Your task to perform on an android device: open a new tab in the chrome app Image 0: 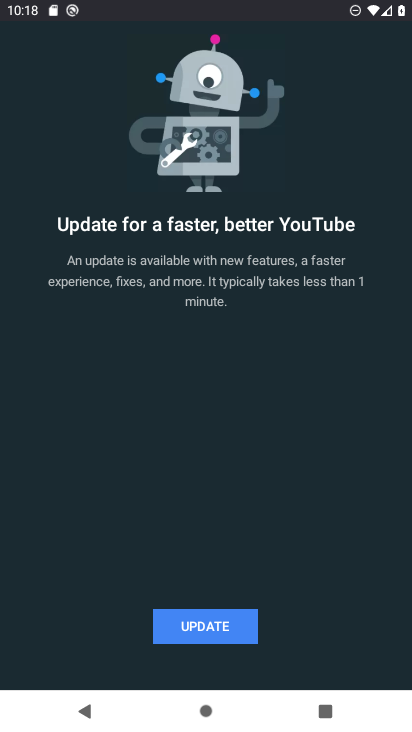
Step 0: press back button
Your task to perform on an android device: open a new tab in the chrome app Image 1: 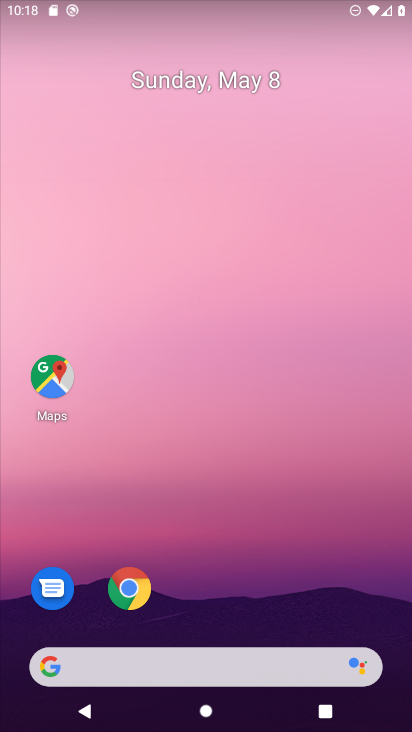
Step 1: click (144, 591)
Your task to perform on an android device: open a new tab in the chrome app Image 2: 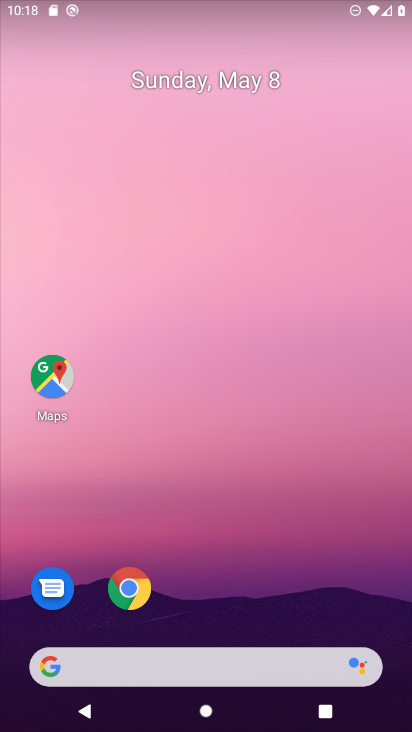
Step 2: click (208, 591)
Your task to perform on an android device: open a new tab in the chrome app Image 3: 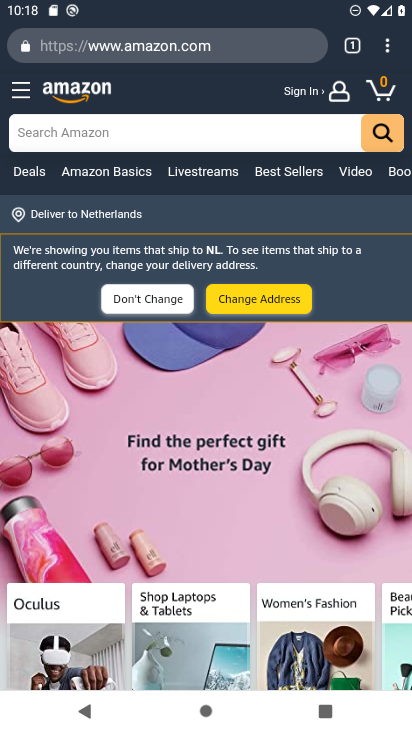
Step 3: click (355, 42)
Your task to perform on an android device: open a new tab in the chrome app Image 4: 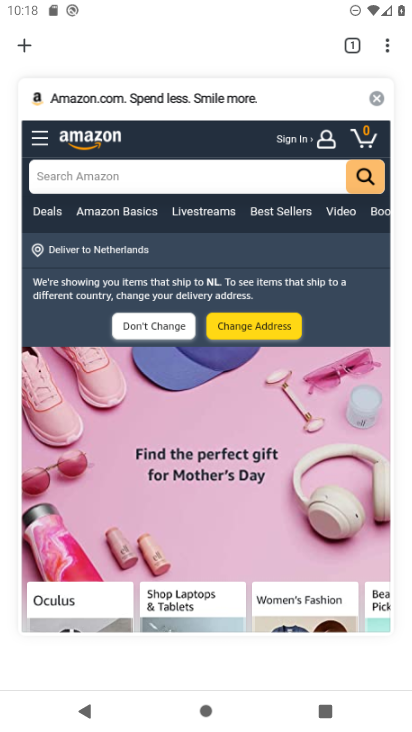
Step 4: click (383, 47)
Your task to perform on an android device: open a new tab in the chrome app Image 5: 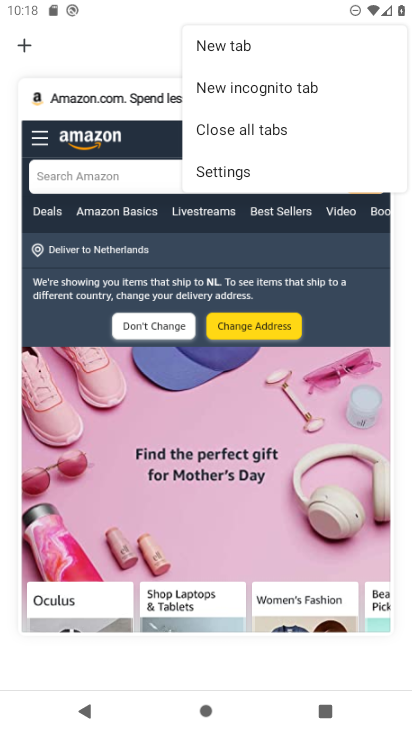
Step 5: click (376, 45)
Your task to perform on an android device: open a new tab in the chrome app Image 6: 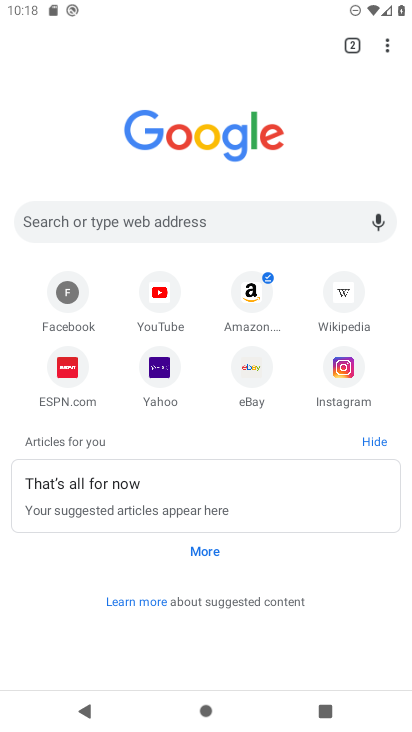
Step 6: task complete